Your task to perform on an android device: Go to privacy settings Image 0: 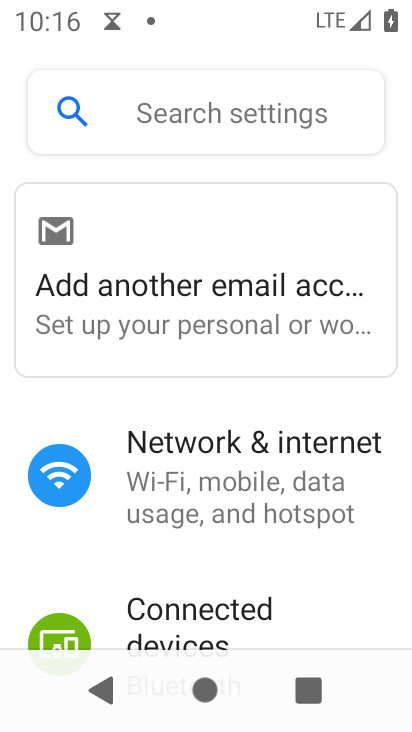
Step 0: drag from (343, 621) to (234, 130)
Your task to perform on an android device: Go to privacy settings Image 1: 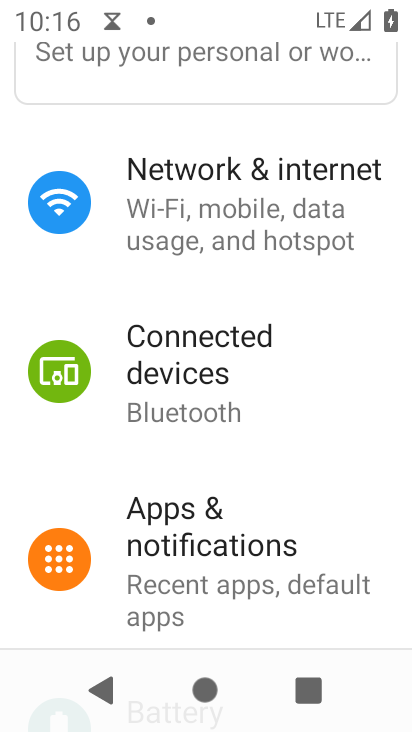
Step 1: drag from (235, 475) to (202, 19)
Your task to perform on an android device: Go to privacy settings Image 2: 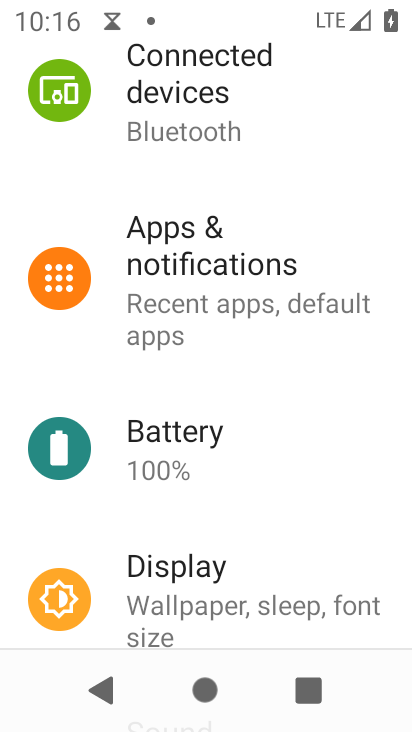
Step 2: drag from (265, 532) to (233, 111)
Your task to perform on an android device: Go to privacy settings Image 3: 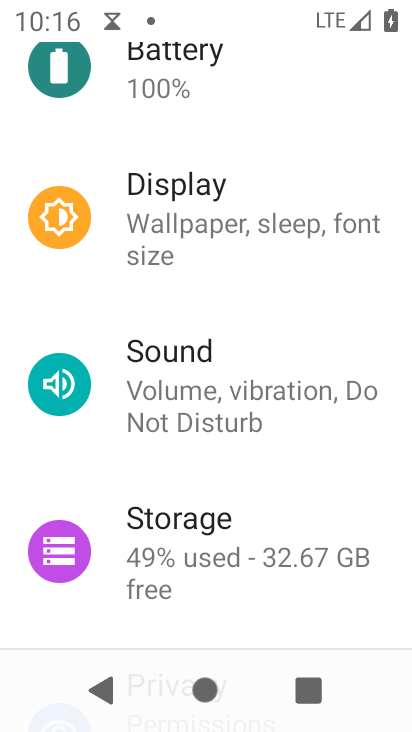
Step 3: drag from (225, 592) to (162, 170)
Your task to perform on an android device: Go to privacy settings Image 4: 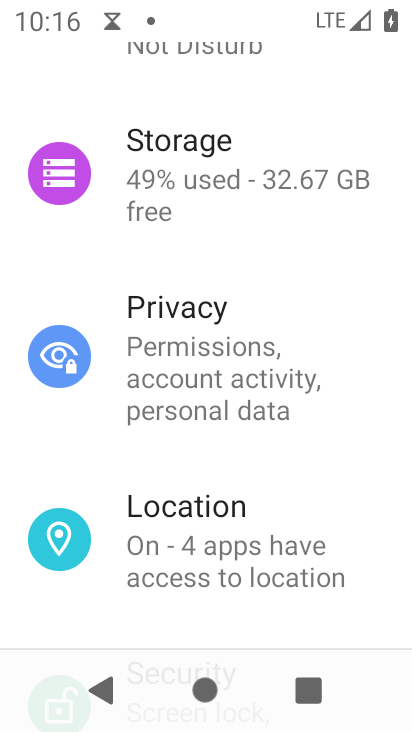
Step 4: click (197, 322)
Your task to perform on an android device: Go to privacy settings Image 5: 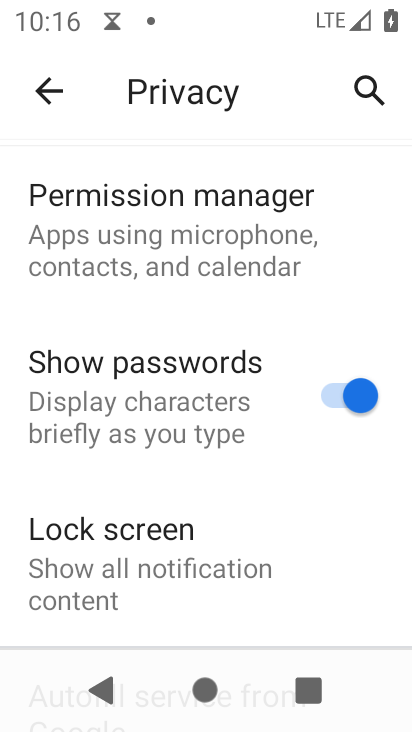
Step 5: task complete